Your task to perform on an android device: turn on wifi Image 0: 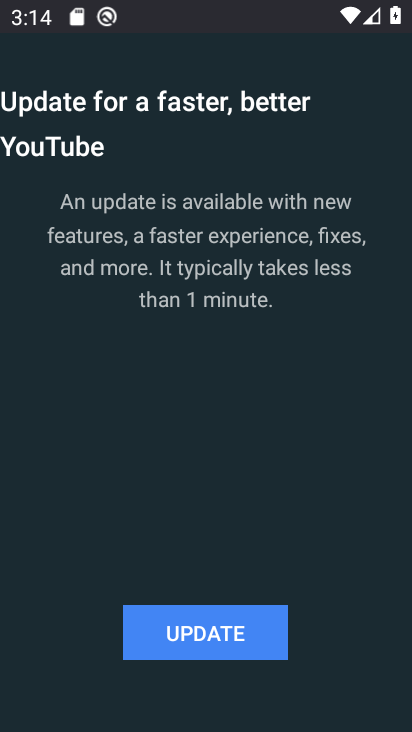
Step 0: press home button
Your task to perform on an android device: turn on wifi Image 1: 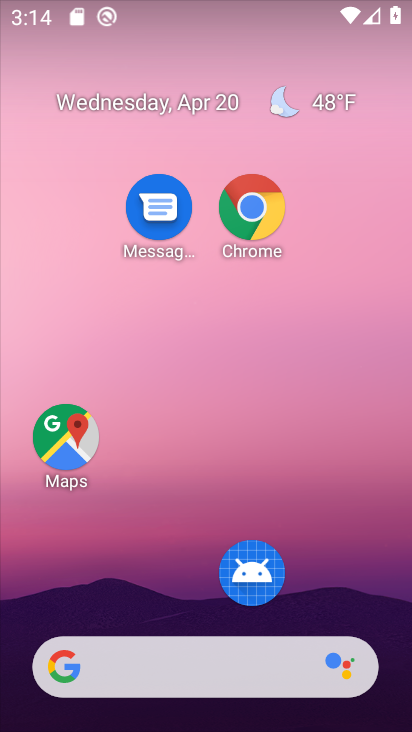
Step 1: drag from (275, 627) to (275, 292)
Your task to perform on an android device: turn on wifi Image 2: 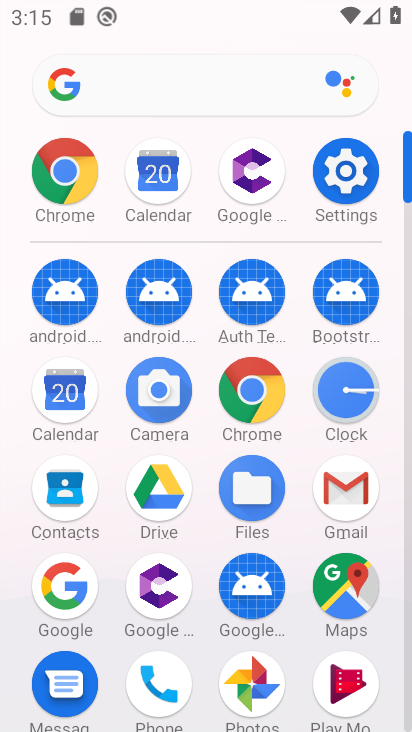
Step 2: click (357, 190)
Your task to perform on an android device: turn on wifi Image 3: 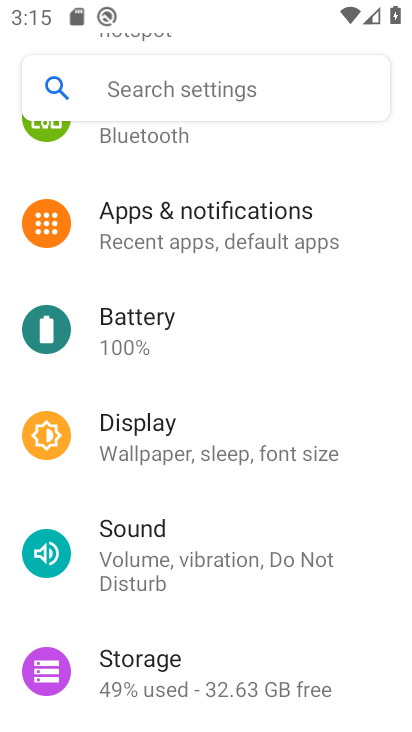
Step 3: drag from (268, 243) to (270, 363)
Your task to perform on an android device: turn on wifi Image 4: 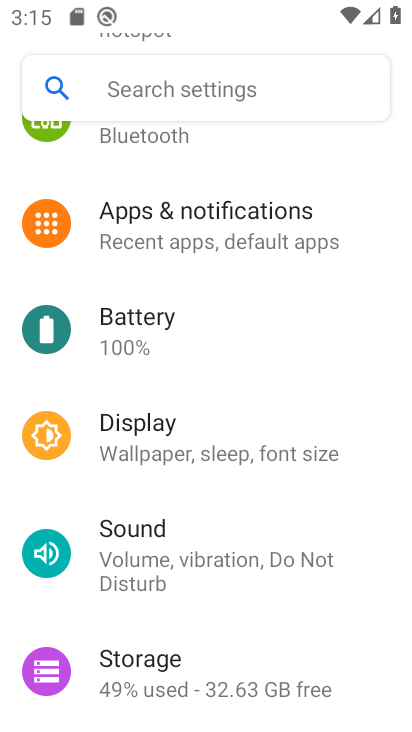
Step 4: drag from (299, 180) to (263, 497)
Your task to perform on an android device: turn on wifi Image 5: 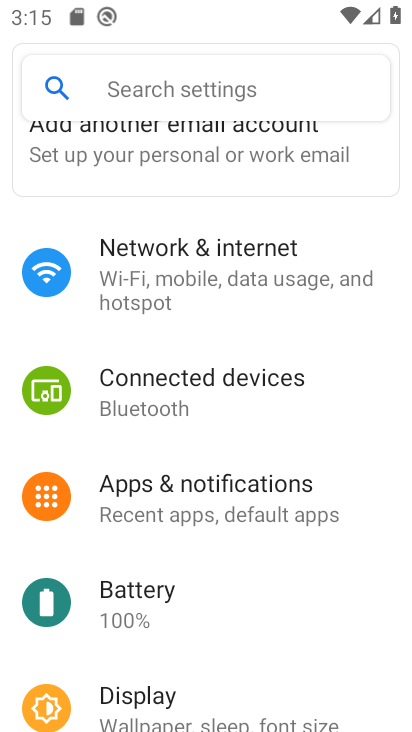
Step 5: click (249, 264)
Your task to perform on an android device: turn on wifi Image 6: 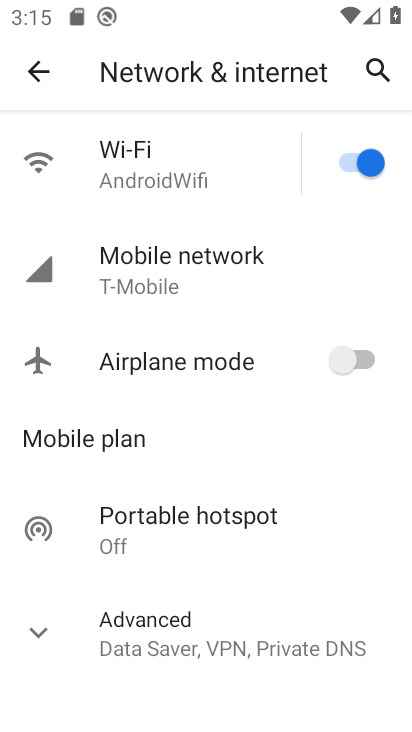
Step 6: task complete